Your task to perform on an android device: toggle improve location accuracy Image 0: 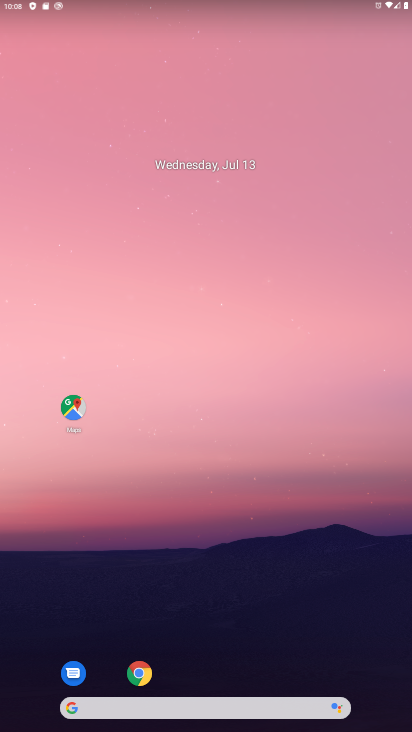
Step 0: drag from (198, 684) to (180, 268)
Your task to perform on an android device: toggle improve location accuracy Image 1: 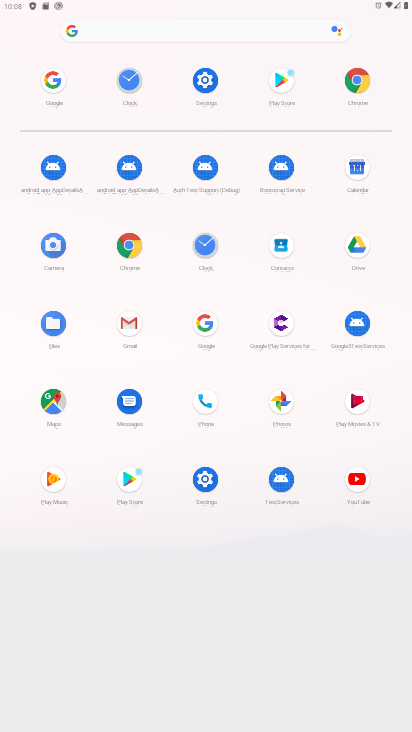
Step 1: click (205, 87)
Your task to perform on an android device: toggle improve location accuracy Image 2: 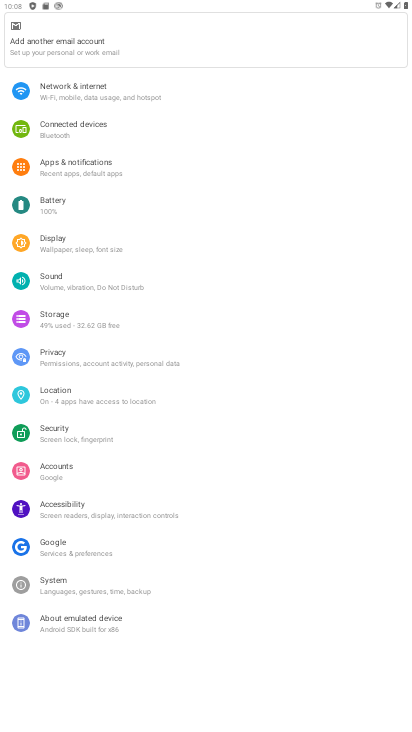
Step 2: click (51, 395)
Your task to perform on an android device: toggle improve location accuracy Image 3: 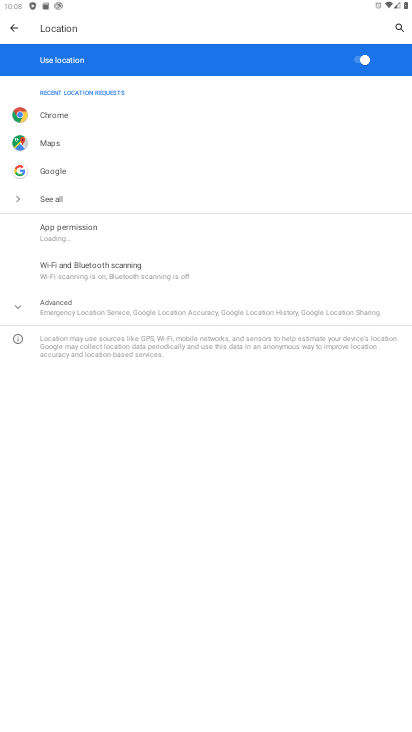
Step 3: click (57, 306)
Your task to perform on an android device: toggle improve location accuracy Image 4: 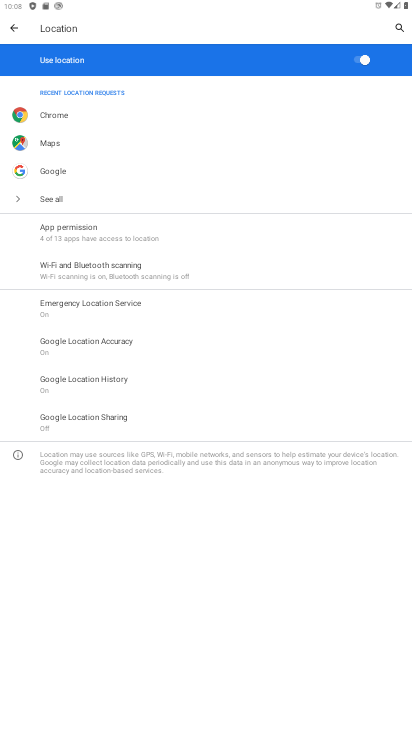
Step 4: click (73, 346)
Your task to perform on an android device: toggle improve location accuracy Image 5: 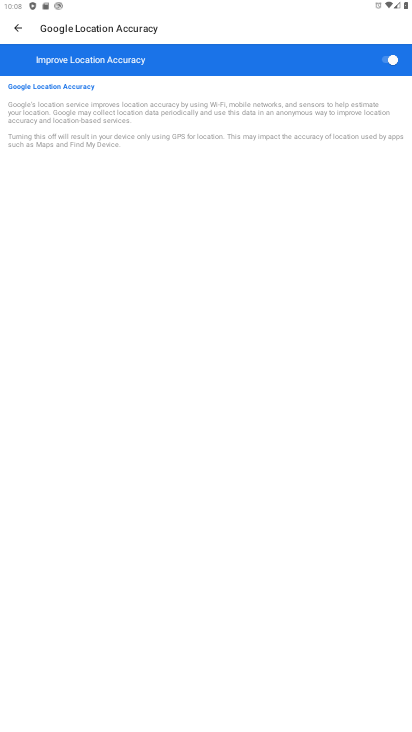
Step 5: click (385, 60)
Your task to perform on an android device: toggle improve location accuracy Image 6: 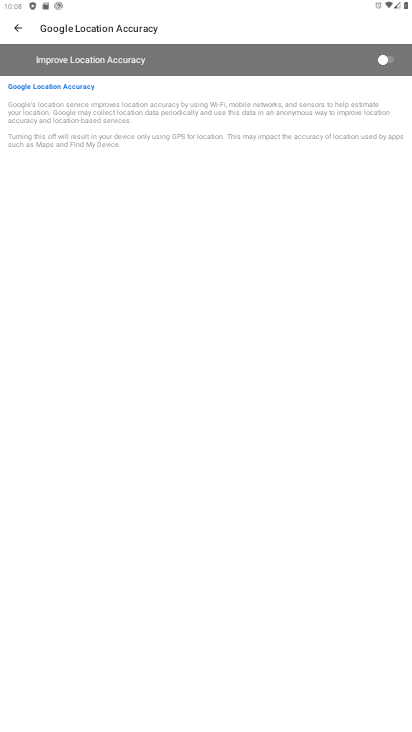
Step 6: task complete